Your task to perform on an android device: Go to Amazon Image 0: 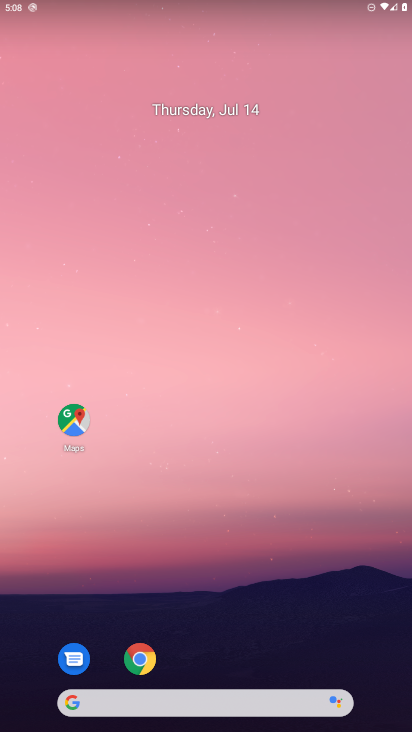
Step 0: press home button
Your task to perform on an android device: Go to Amazon Image 1: 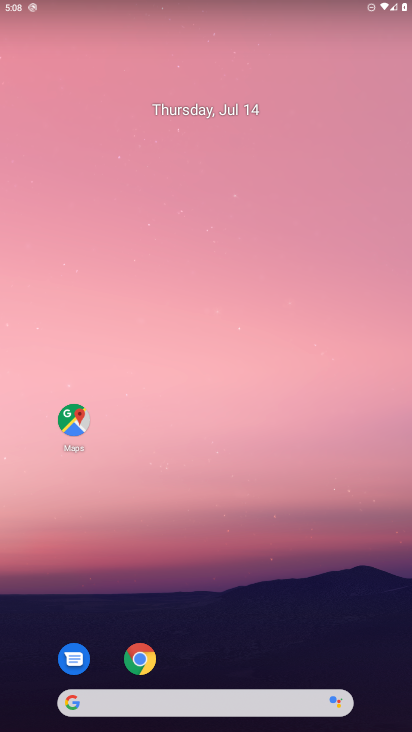
Step 1: click (147, 655)
Your task to perform on an android device: Go to Amazon Image 2: 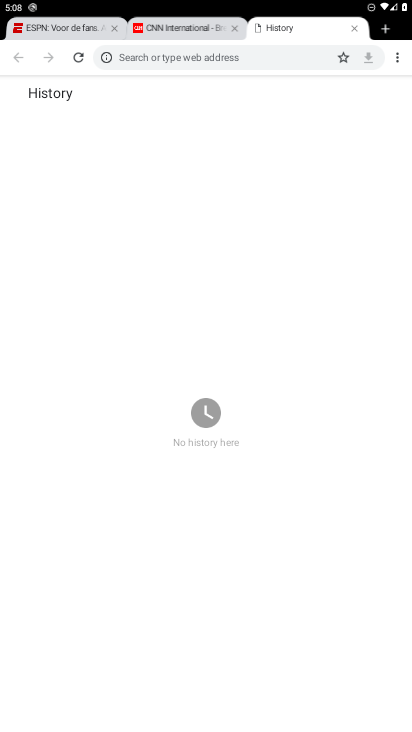
Step 2: click (355, 23)
Your task to perform on an android device: Go to Amazon Image 3: 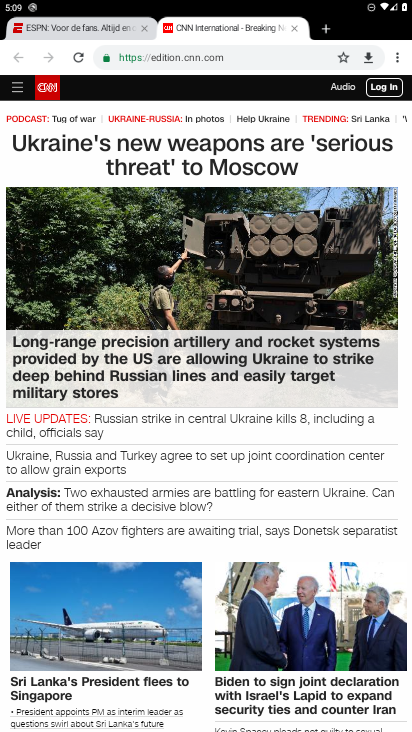
Step 3: click (320, 28)
Your task to perform on an android device: Go to Amazon Image 4: 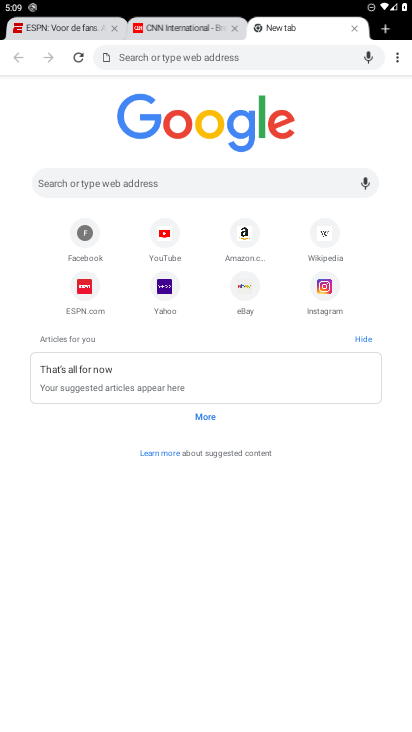
Step 4: click (167, 54)
Your task to perform on an android device: Go to Amazon Image 5: 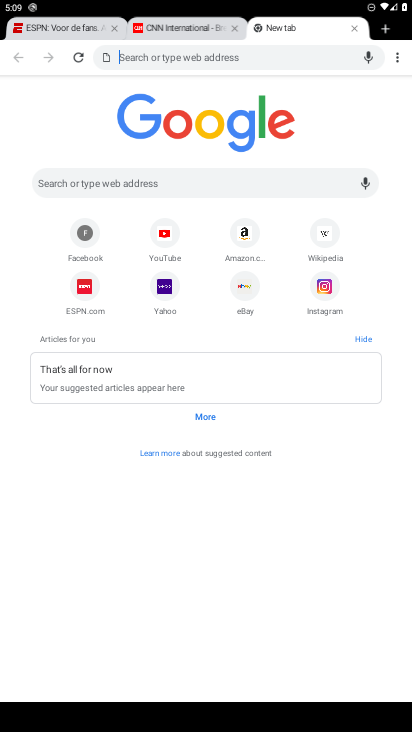
Step 5: click (239, 225)
Your task to perform on an android device: Go to Amazon Image 6: 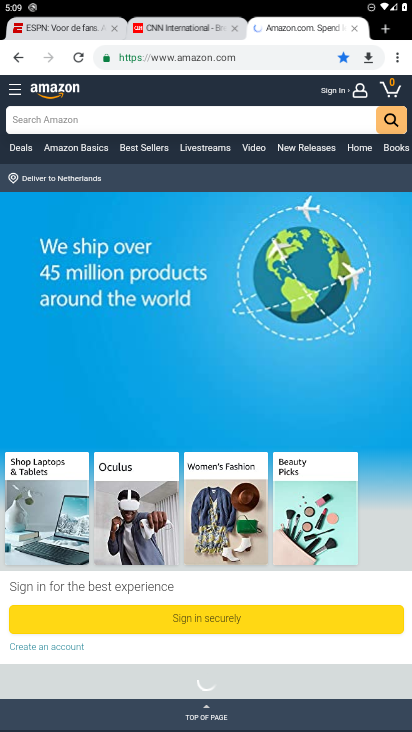
Step 6: task complete